Your task to perform on an android device: find which apps use the phone's location Image 0: 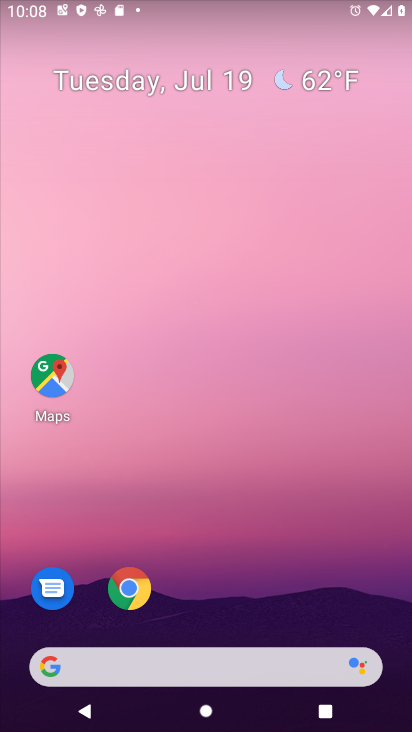
Step 0: drag from (289, 550) to (233, 47)
Your task to perform on an android device: find which apps use the phone's location Image 1: 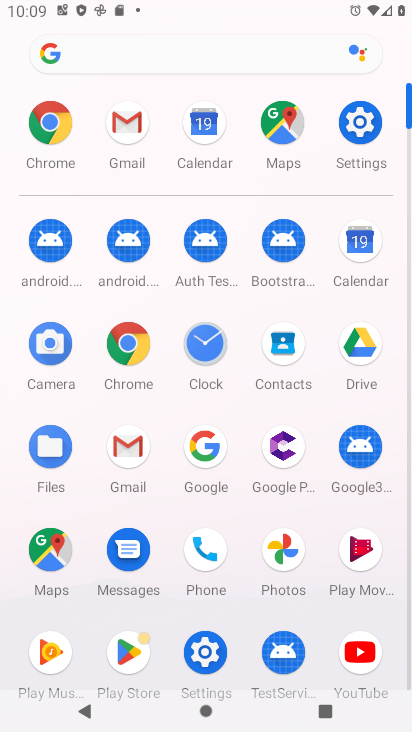
Step 1: click (355, 130)
Your task to perform on an android device: find which apps use the phone's location Image 2: 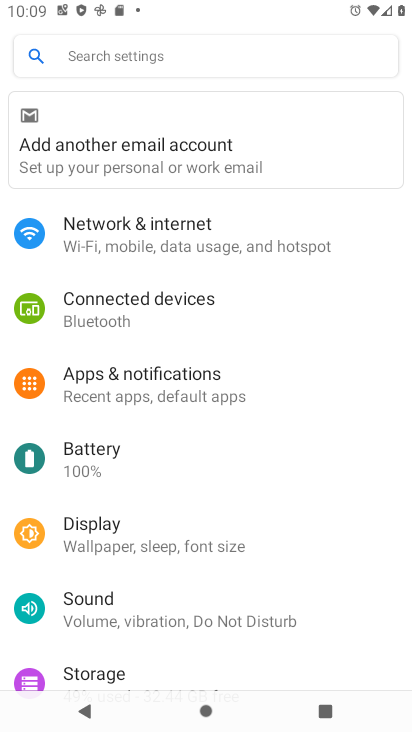
Step 2: click (118, 389)
Your task to perform on an android device: find which apps use the phone's location Image 3: 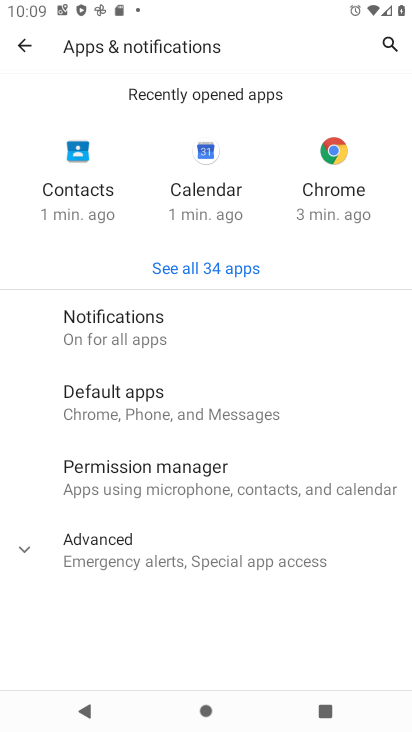
Step 3: click (110, 485)
Your task to perform on an android device: find which apps use the phone's location Image 4: 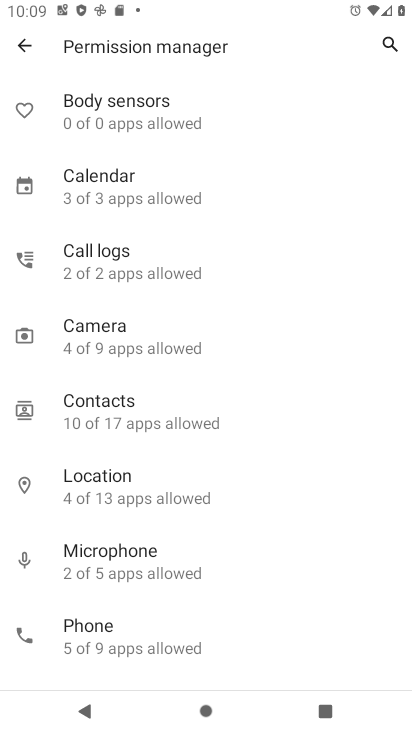
Step 4: task complete